Your task to perform on an android device: Open Maps and search for coffee Image 0: 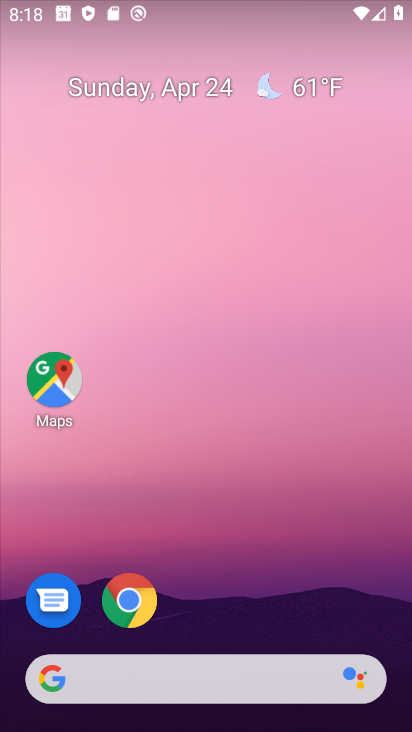
Step 0: drag from (210, 728) to (208, 114)
Your task to perform on an android device: Open Maps and search for coffee Image 1: 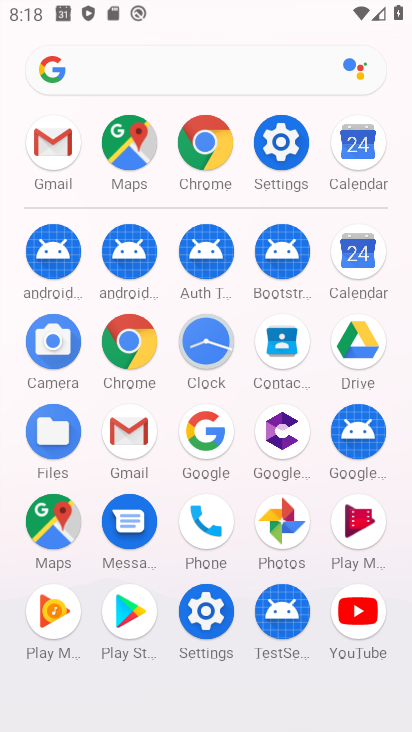
Step 1: click (56, 518)
Your task to perform on an android device: Open Maps and search for coffee Image 2: 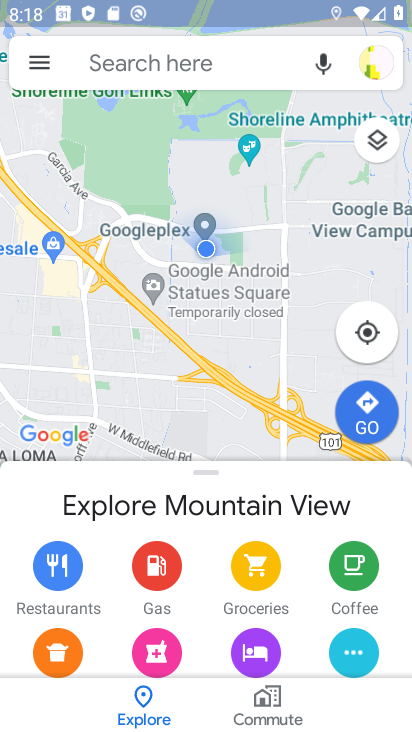
Step 2: click (184, 62)
Your task to perform on an android device: Open Maps and search for coffee Image 3: 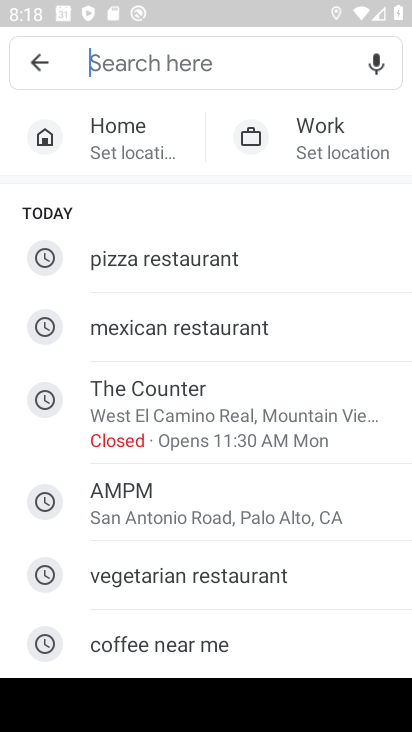
Step 3: type "coffee"
Your task to perform on an android device: Open Maps and search for coffee Image 4: 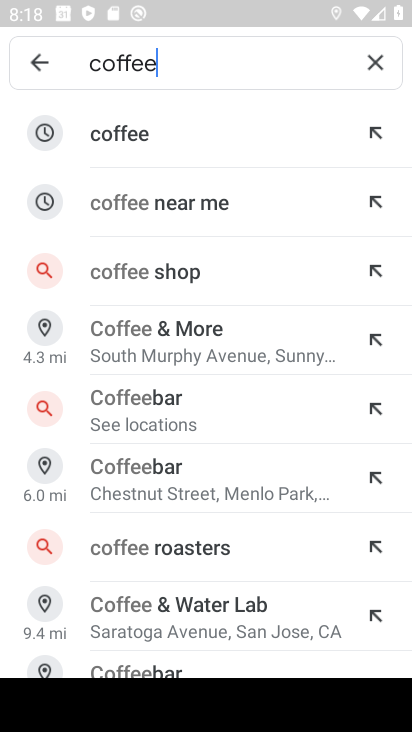
Step 4: click (110, 131)
Your task to perform on an android device: Open Maps and search for coffee Image 5: 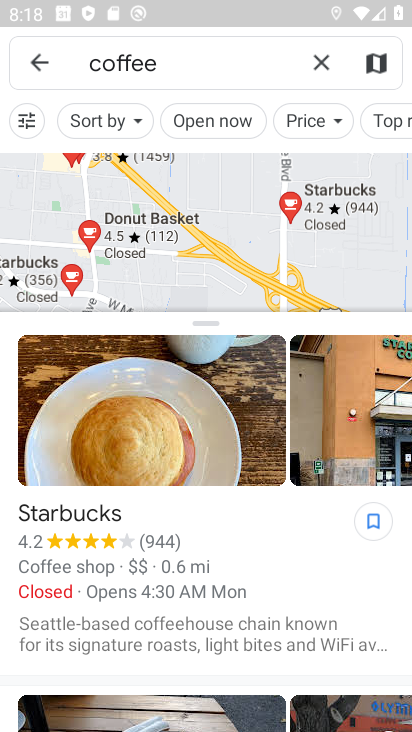
Step 5: task complete